Your task to perform on an android device: Go to battery settings Image 0: 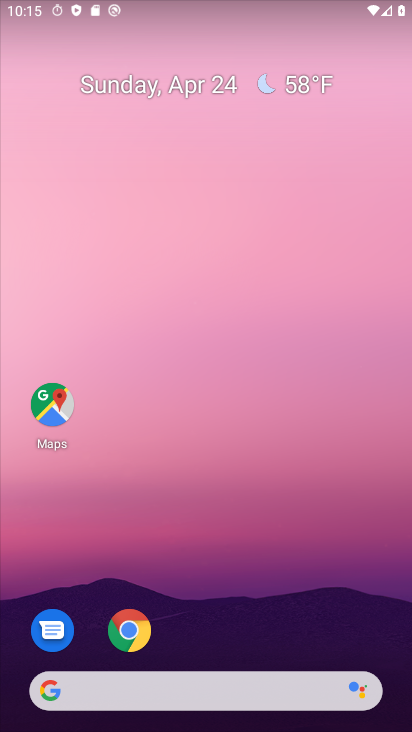
Step 0: drag from (204, 585) to (387, 31)
Your task to perform on an android device: Go to battery settings Image 1: 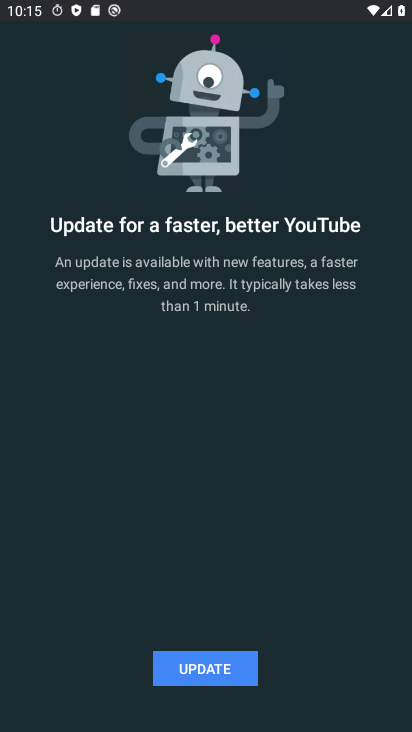
Step 1: press home button
Your task to perform on an android device: Go to battery settings Image 2: 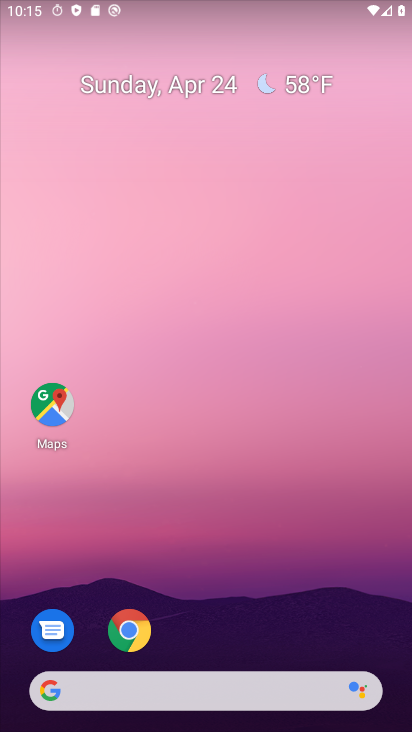
Step 2: drag from (264, 591) to (283, 233)
Your task to perform on an android device: Go to battery settings Image 3: 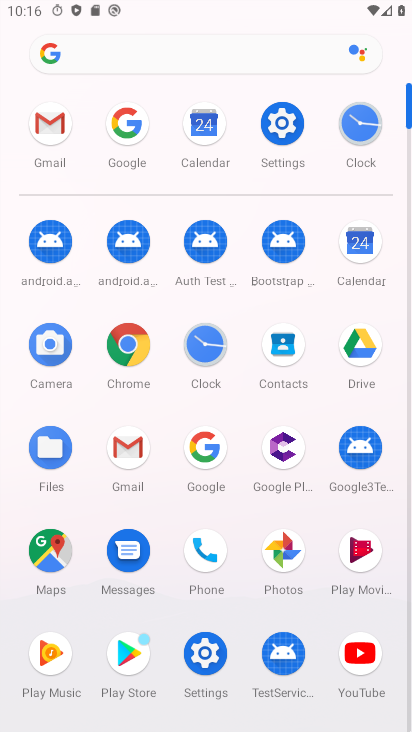
Step 3: click (295, 132)
Your task to perform on an android device: Go to battery settings Image 4: 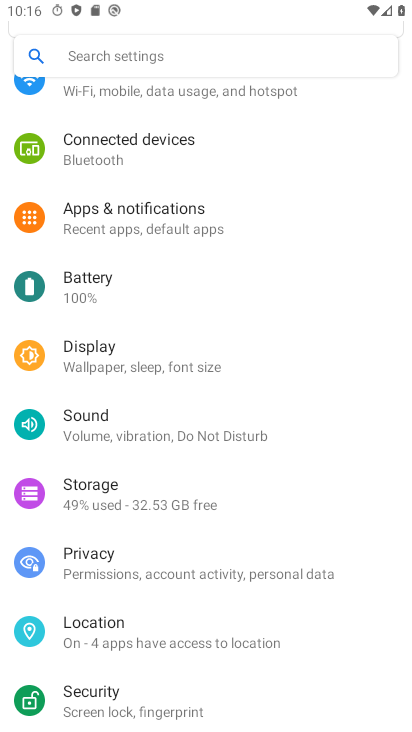
Step 4: click (183, 287)
Your task to perform on an android device: Go to battery settings Image 5: 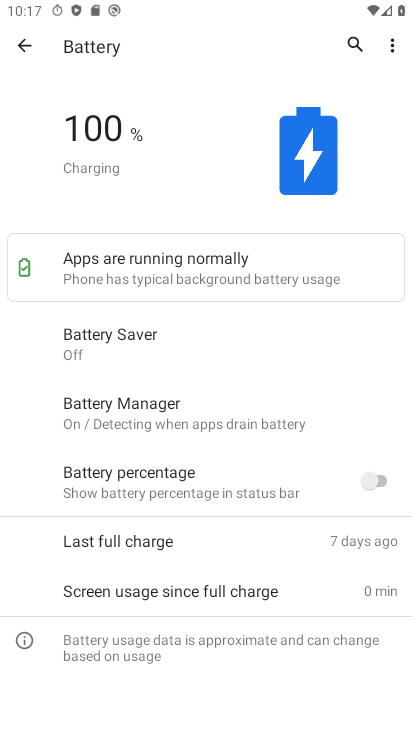
Step 5: task complete